Your task to perform on an android device: Open the calendar and show me this week's events Image 0: 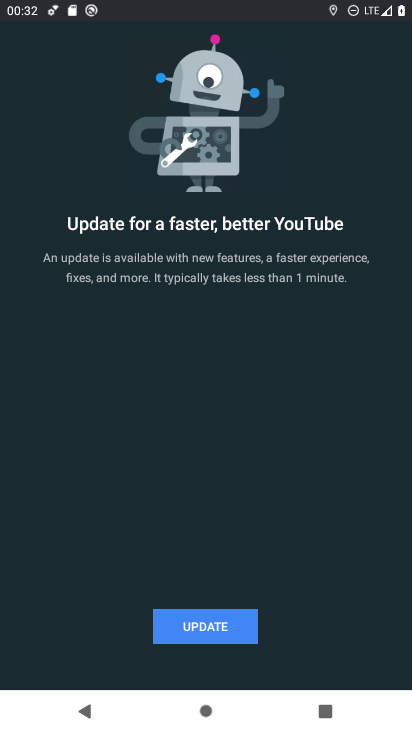
Step 0: press home button
Your task to perform on an android device: Open the calendar and show me this week's events Image 1: 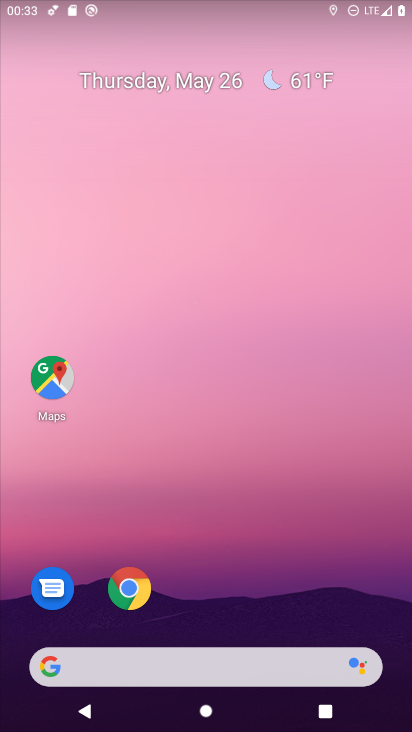
Step 1: drag from (212, 587) to (107, 192)
Your task to perform on an android device: Open the calendar and show me this week's events Image 2: 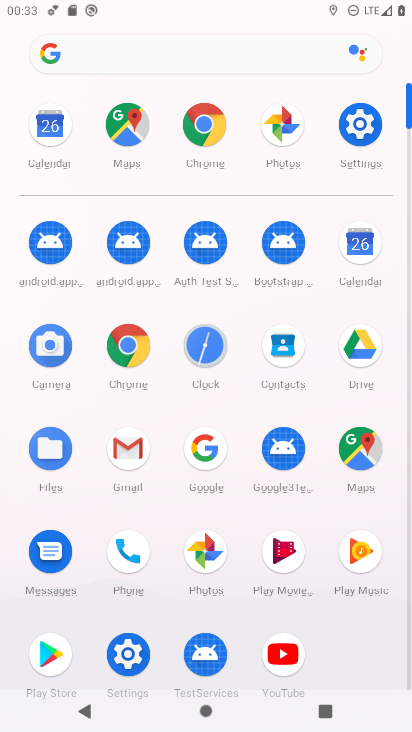
Step 2: click (351, 250)
Your task to perform on an android device: Open the calendar and show me this week's events Image 3: 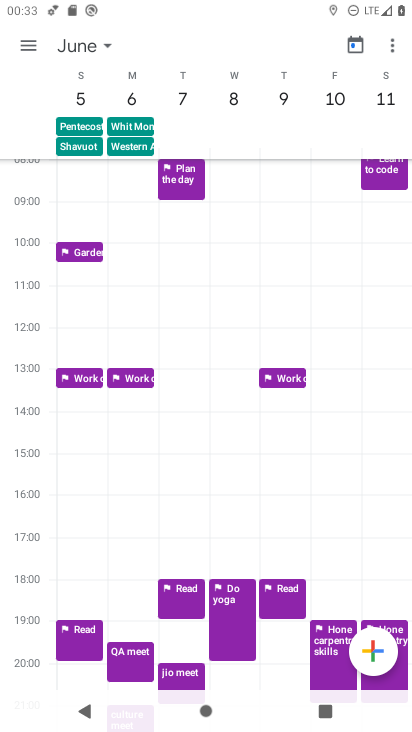
Step 3: click (96, 48)
Your task to perform on an android device: Open the calendar and show me this week's events Image 4: 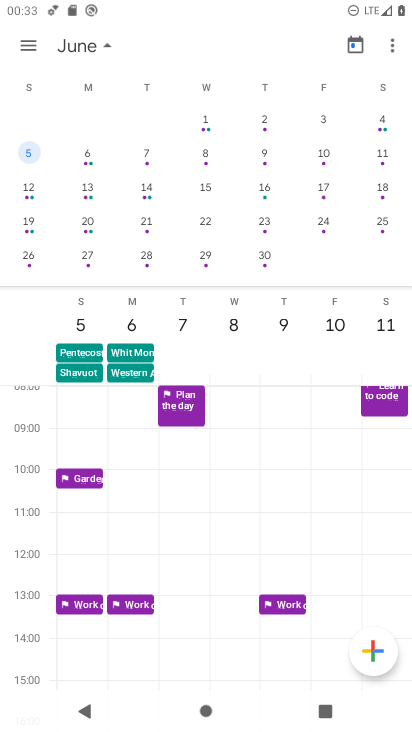
Step 4: drag from (64, 203) to (410, 262)
Your task to perform on an android device: Open the calendar and show me this week's events Image 5: 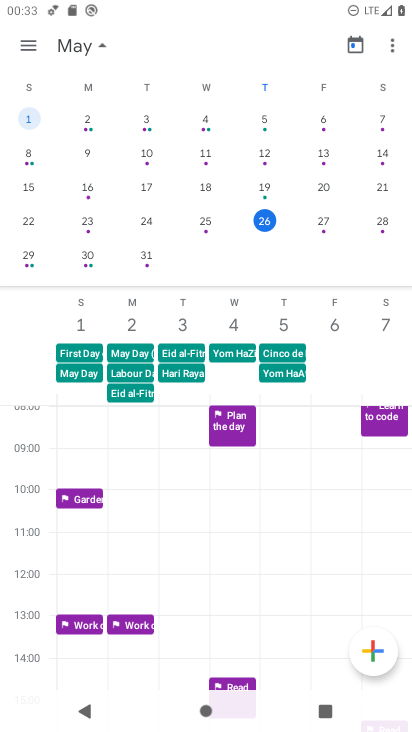
Step 5: click (272, 213)
Your task to perform on an android device: Open the calendar and show me this week's events Image 6: 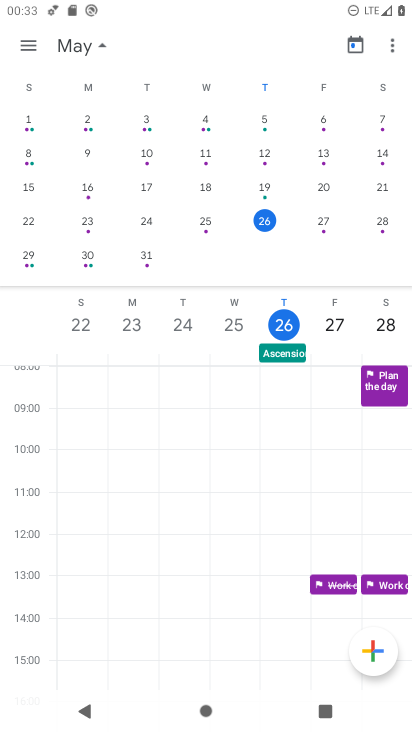
Step 6: task complete